Your task to perform on an android device: find photos in the google photos app Image 0: 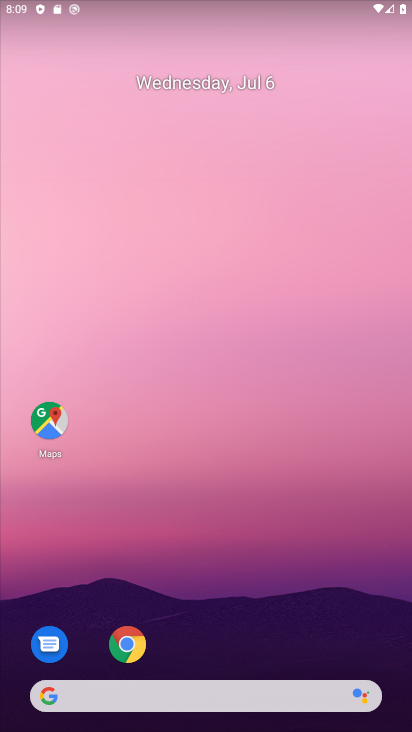
Step 0: drag from (204, 638) to (202, 159)
Your task to perform on an android device: find photos in the google photos app Image 1: 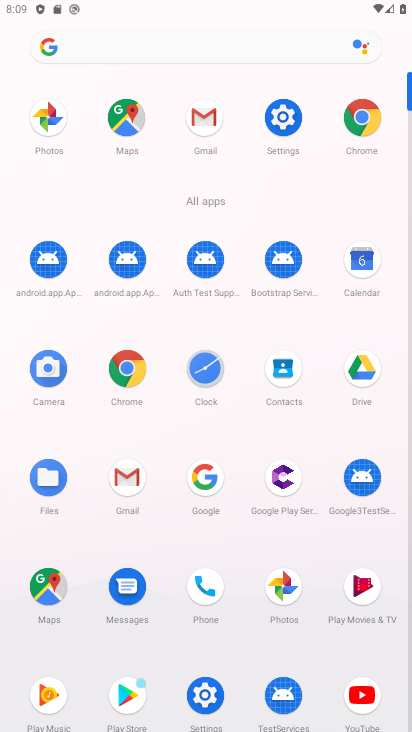
Step 1: click (40, 124)
Your task to perform on an android device: find photos in the google photos app Image 2: 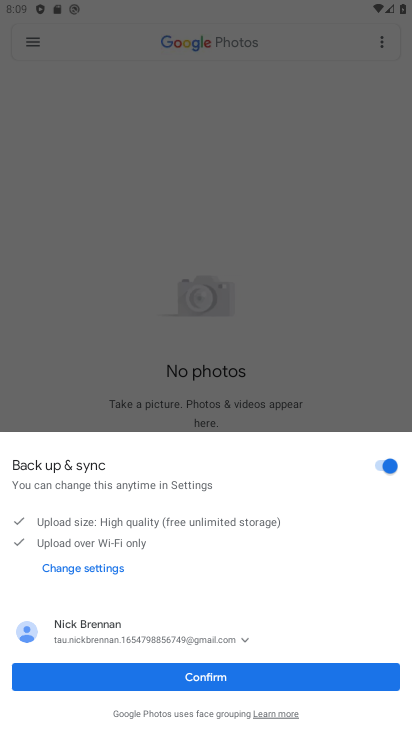
Step 2: click (223, 667)
Your task to perform on an android device: find photos in the google photos app Image 3: 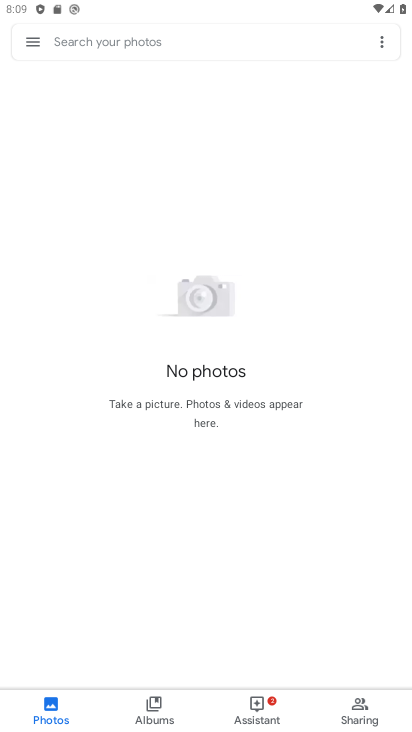
Step 3: click (142, 47)
Your task to perform on an android device: find photos in the google photos app Image 4: 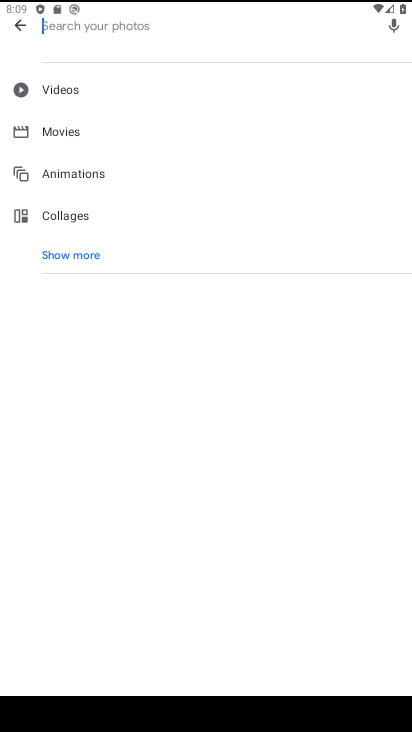
Step 4: type "aa"
Your task to perform on an android device: find photos in the google photos app Image 5: 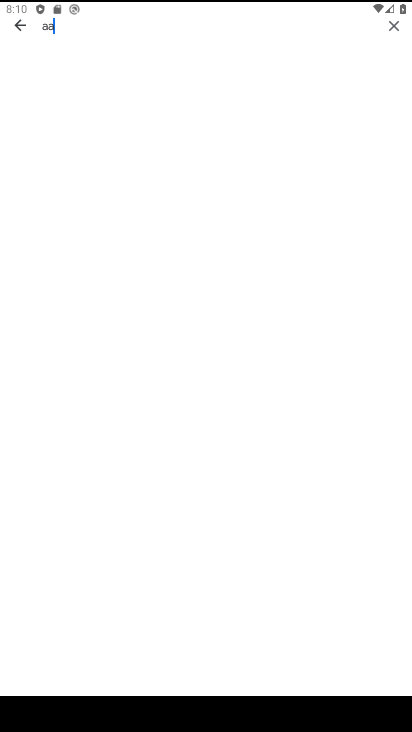
Step 5: task complete